Your task to perform on an android device: Go to accessibility settings Image 0: 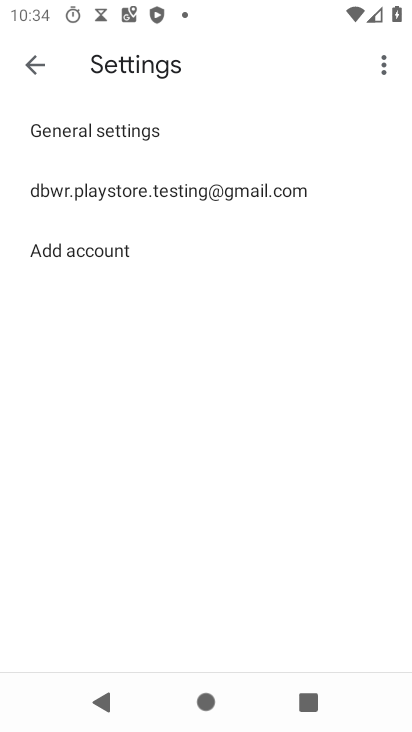
Step 0: press home button
Your task to perform on an android device: Go to accessibility settings Image 1: 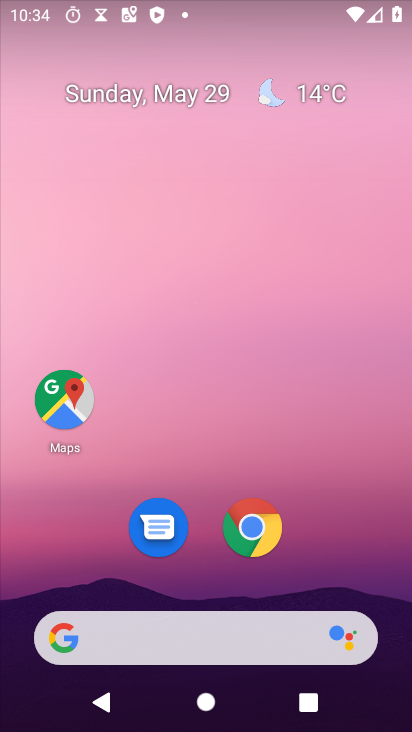
Step 1: drag from (177, 645) to (308, 12)
Your task to perform on an android device: Go to accessibility settings Image 2: 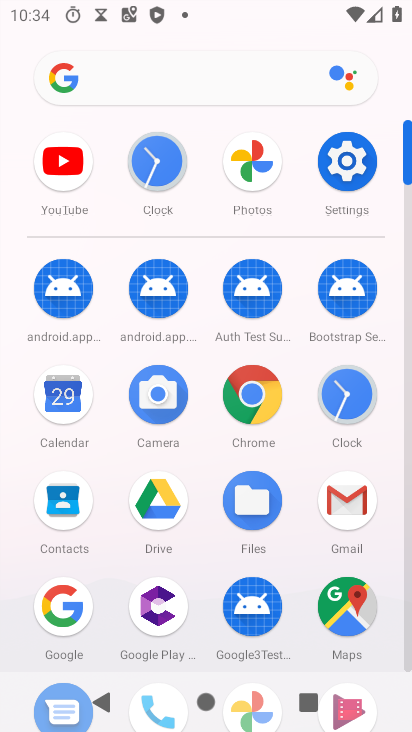
Step 2: click (351, 154)
Your task to perform on an android device: Go to accessibility settings Image 3: 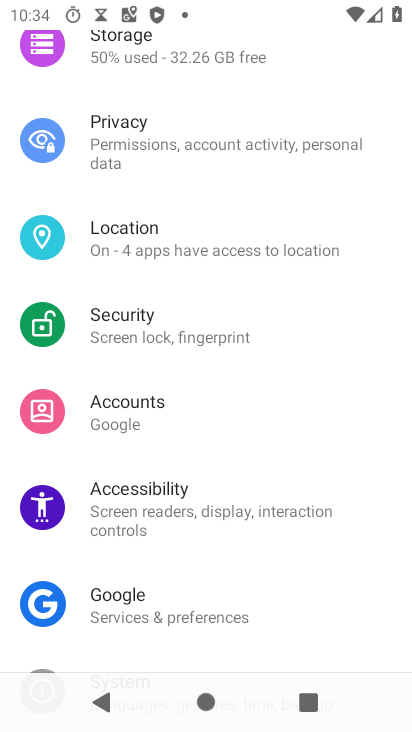
Step 3: click (172, 494)
Your task to perform on an android device: Go to accessibility settings Image 4: 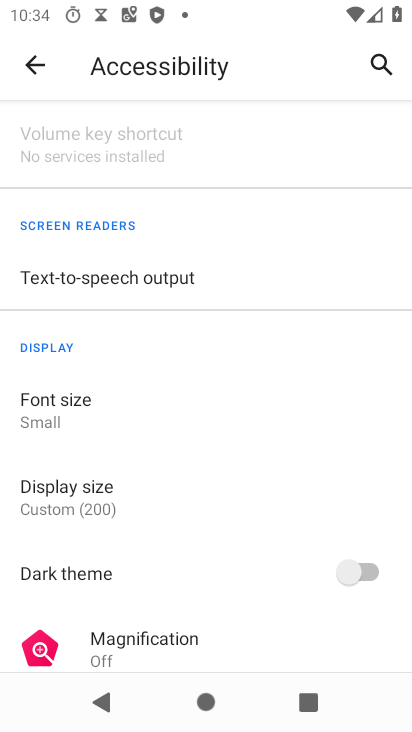
Step 4: task complete